Your task to perform on an android device: Open Yahoo.com Image 0: 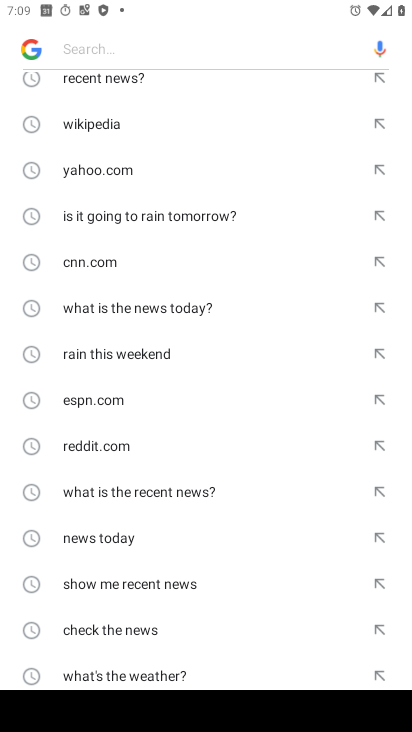
Step 0: press home button
Your task to perform on an android device: Open Yahoo.com Image 1: 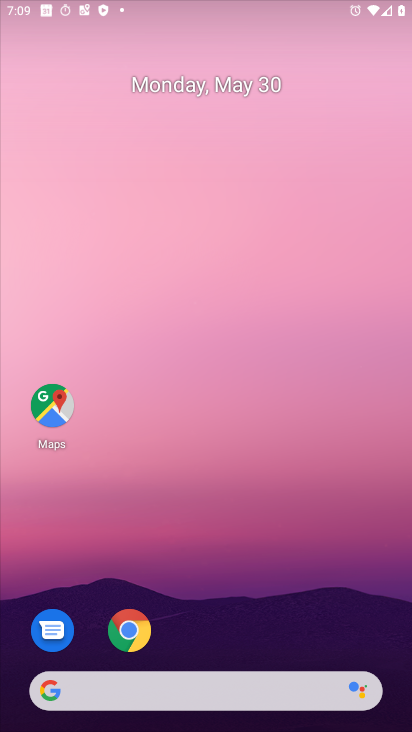
Step 1: drag from (284, 623) to (237, 2)
Your task to perform on an android device: Open Yahoo.com Image 2: 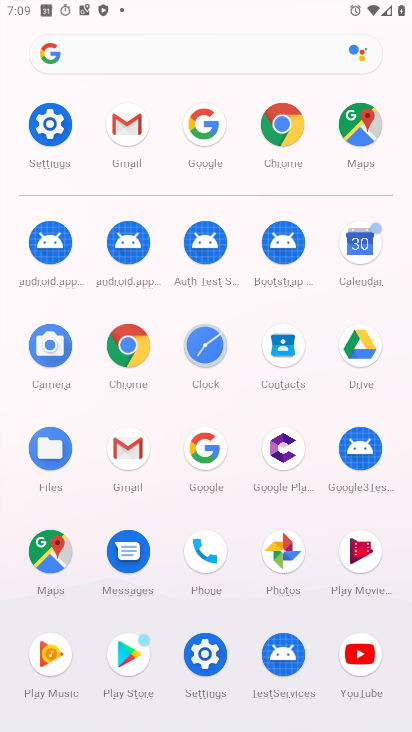
Step 2: click (198, 458)
Your task to perform on an android device: Open Yahoo.com Image 3: 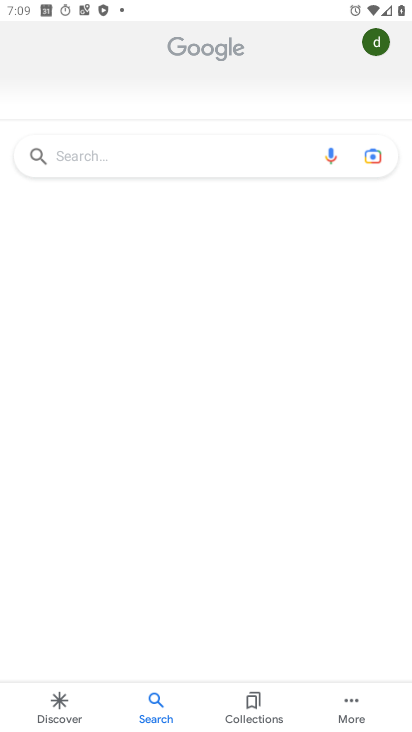
Step 3: click (135, 147)
Your task to perform on an android device: Open Yahoo.com Image 4: 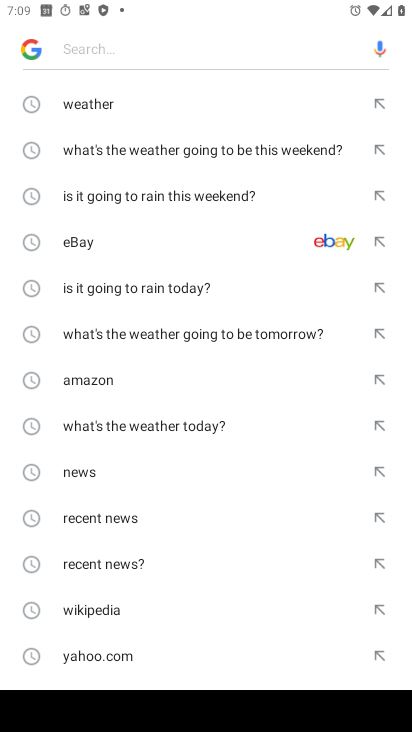
Step 4: click (110, 647)
Your task to perform on an android device: Open Yahoo.com Image 5: 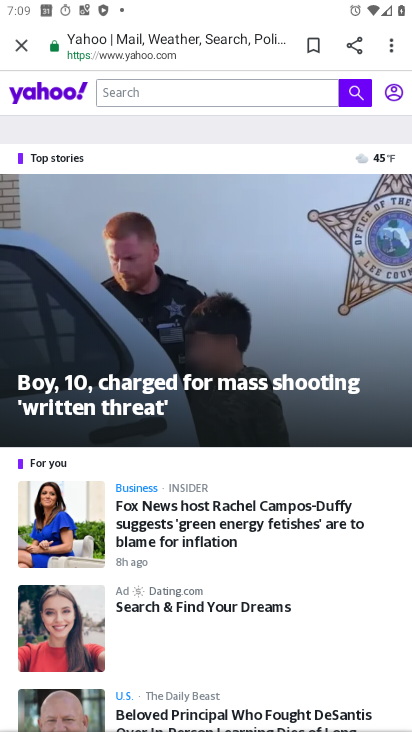
Step 5: task complete